Your task to perform on an android device: stop showing notifications on the lock screen Image 0: 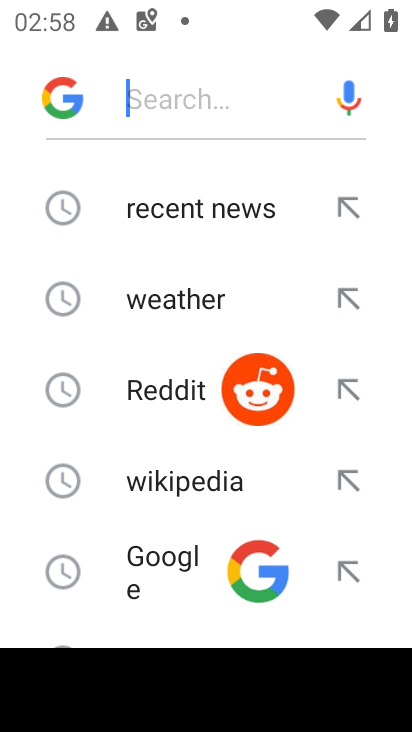
Step 0: press home button
Your task to perform on an android device: stop showing notifications on the lock screen Image 1: 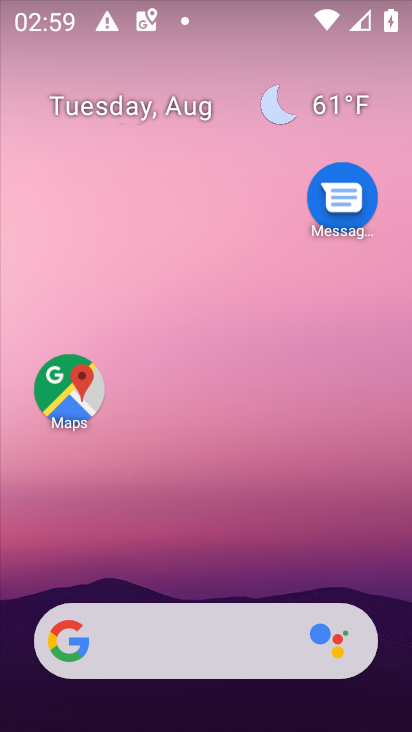
Step 1: drag from (222, 563) to (252, 164)
Your task to perform on an android device: stop showing notifications on the lock screen Image 2: 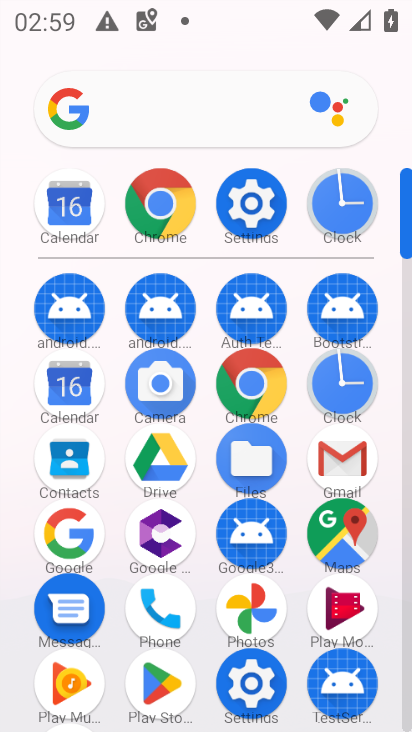
Step 2: click (242, 197)
Your task to perform on an android device: stop showing notifications on the lock screen Image 3: 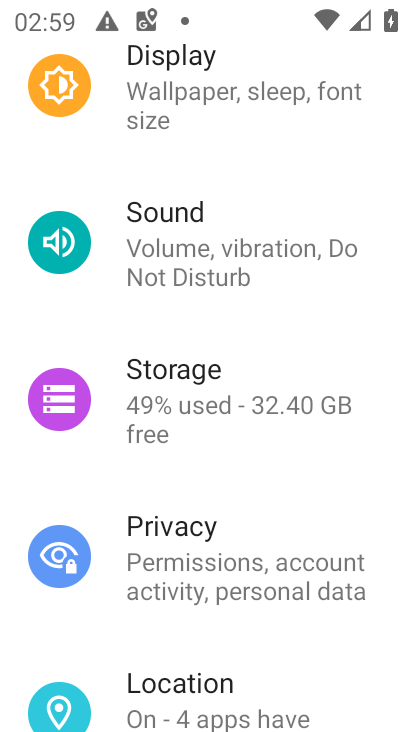
Step 3: drag from (163, 235) to (143, 549)
Your task to perform on an android device: stop showing notifications on the lock screen Image 4: 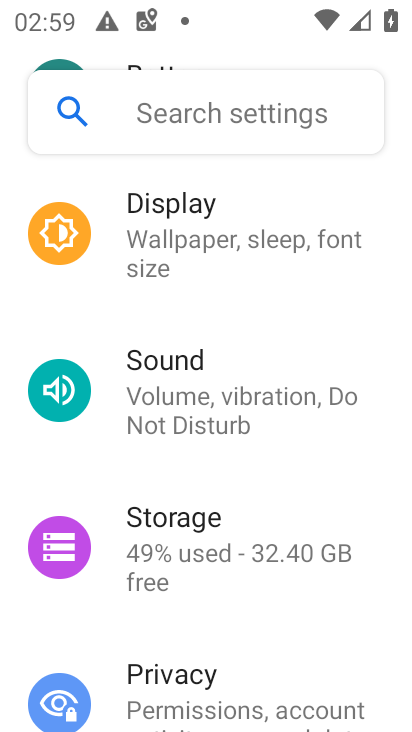
Step 4: drag from (130, 236) to (158, 552)
Your task to perform on an android device: stop showing notifications on the lock screen Image 5: 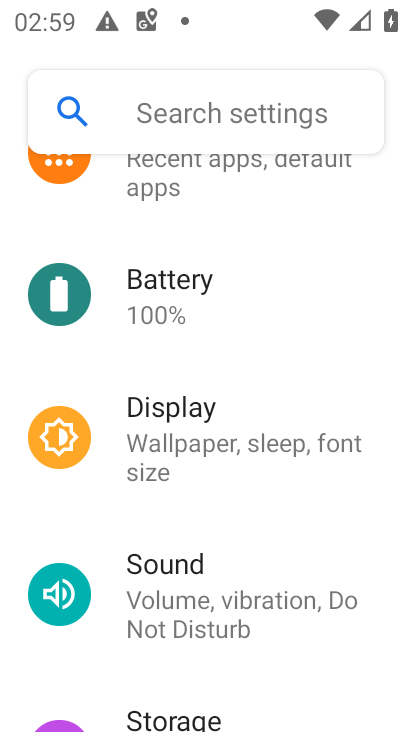
Step 5: drag from (164, 278) to (176, 708)
Your task to perform on an android device: stop showing notifications on the lock screen Image 6: 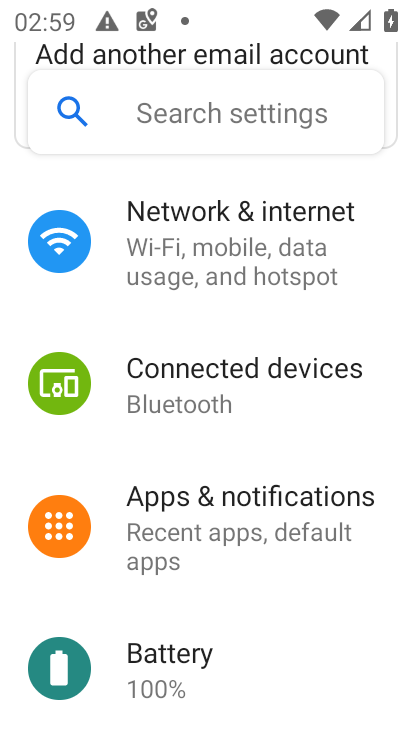
Step 6: click (229, 422)
Your task to perform on an android device: stop showing notifications on the lock screen Image 7: 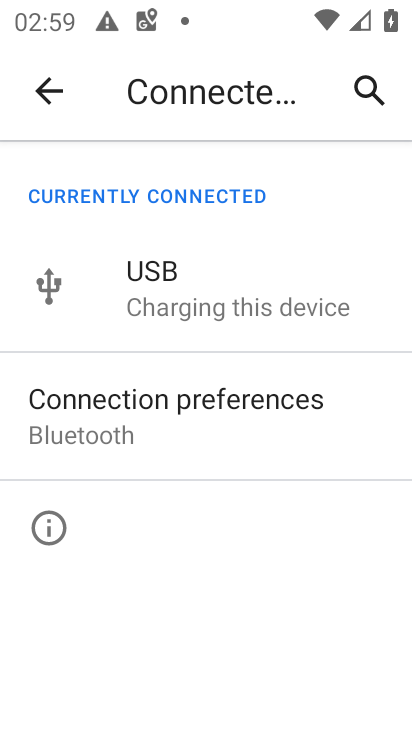
Step 7: click (31, 110)
Your task to perform on an android device: stop showing notifications on the lock screen Image 8: 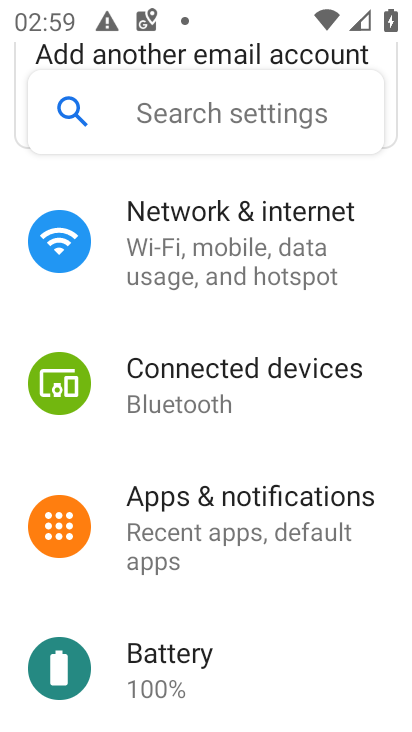
Step 8: click (250, 527)
Your task to perform on an android device: stop showing notifications on the lock screen Image 9: 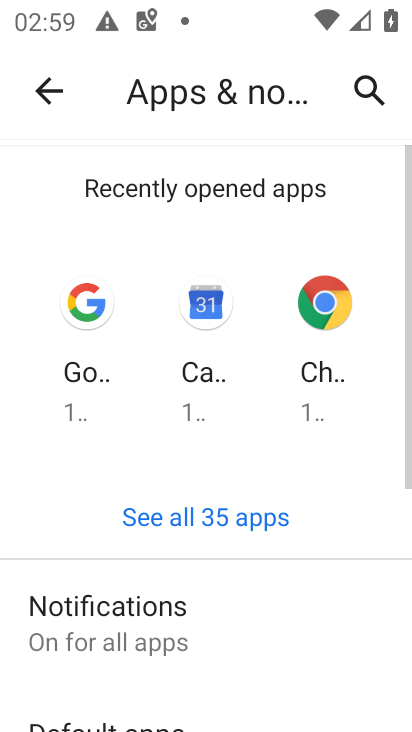
Step 9: drag from (270, 616) to (250, 144)
Your task to perform on an android device: stop showing notifications on the lock screen Image 10: 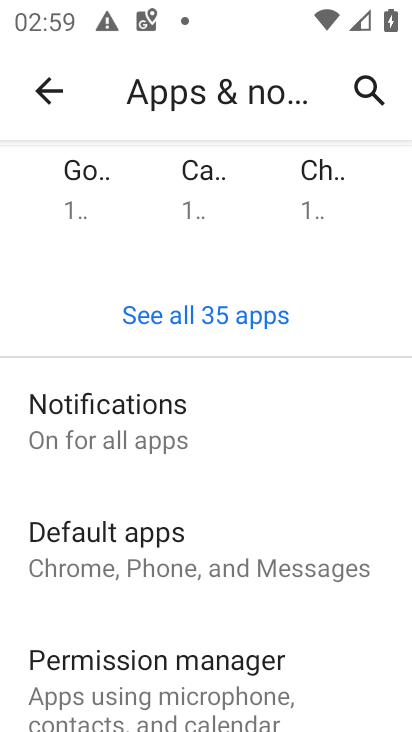
Step 10: click (231, 412)
Your task to perform on an android device: stop showing notifications on the lock screen Image 11: 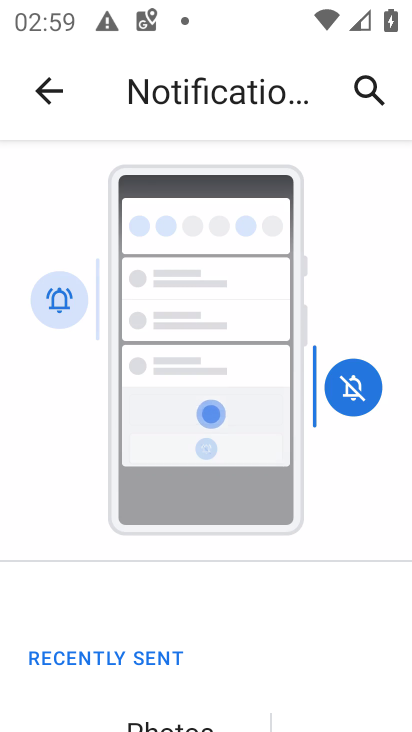
Step 11: drag from (256, 644) to (212, 145)
Your task to perform on an android device: stop showing notifications on the lock screen Image 12: 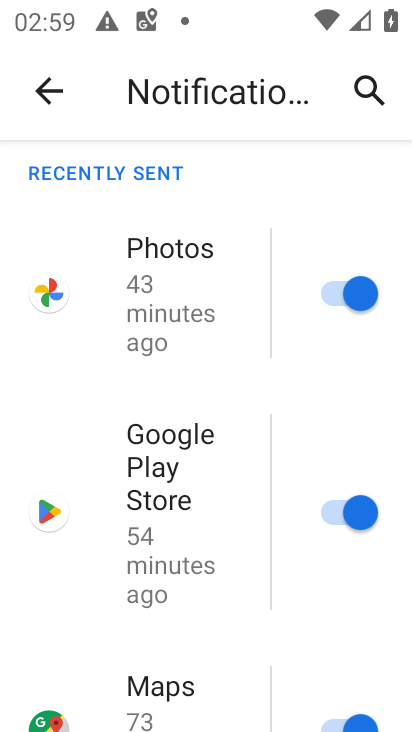
Step 12: drag from (238, 664) to (179, 215)
Your task to perform on an android device: stop showing notifications on the lock screen Image 13: 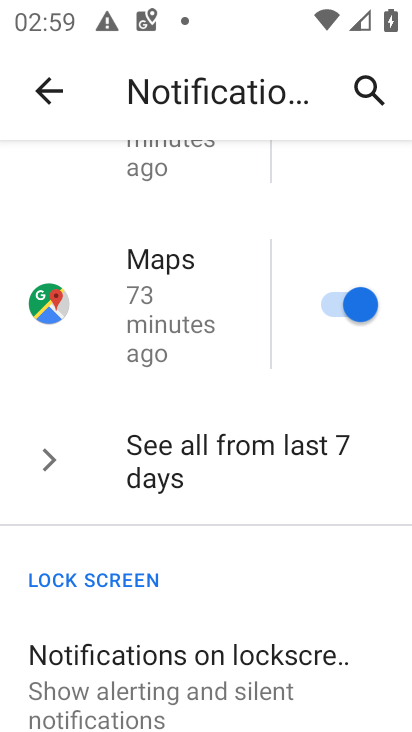
Step 13: drag from (217, 615) to (215, 264)
Your task to perform on an android device: stop showing notifications on the lock screen Image 14: 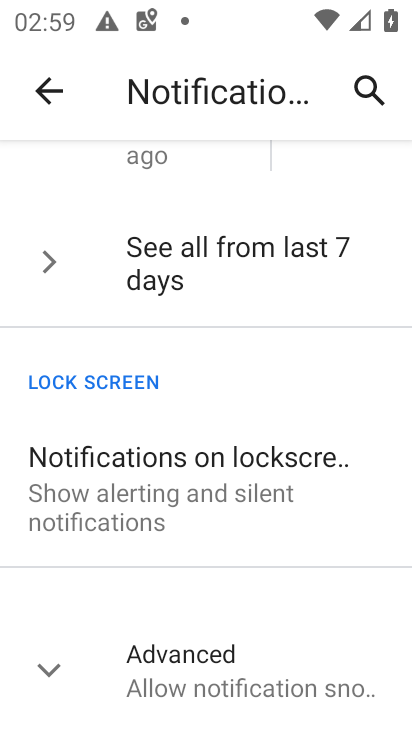
Step 14: click (215, 467)
Your task to perform on an android device: stop showing notifications on the lock screen Image 15: 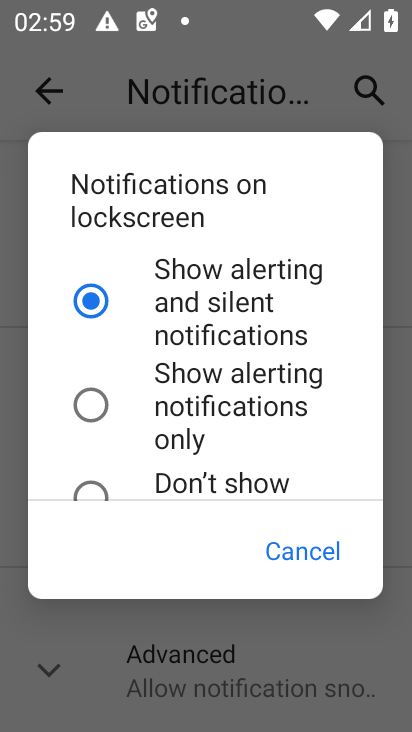
Step 15: click (213, 486)
Your task to perform on an android device: stop showing notifications on the lock screen Image 16: 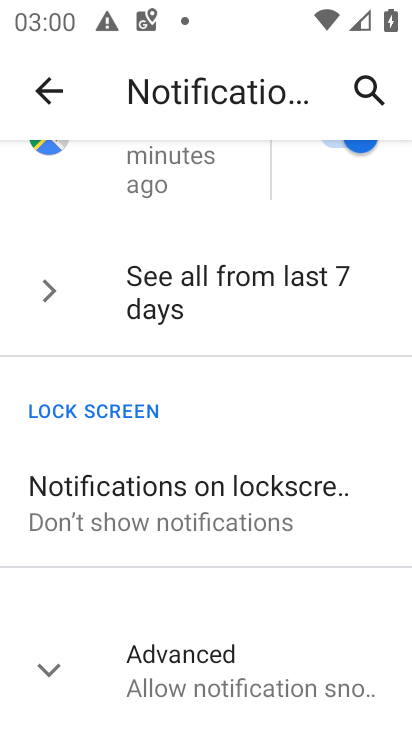
Step 16: task complete